Your task to perform on an android device: Go to Maps Image 0: 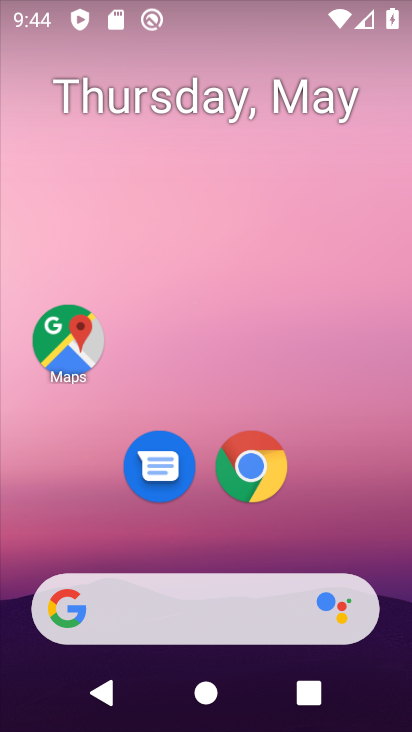
Step 0: click (55, 328)
Your task to perform on an android device: Go to Maps Image 1: 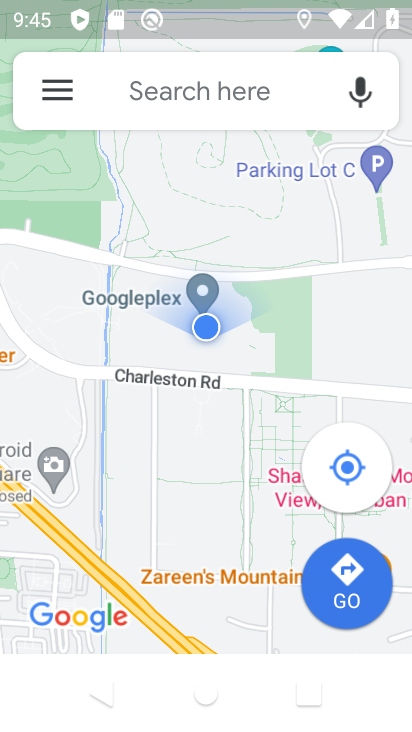
Step 1: task complete